Your task to perform on an android device: remove spam from my inbox in the gmail app Image 0: 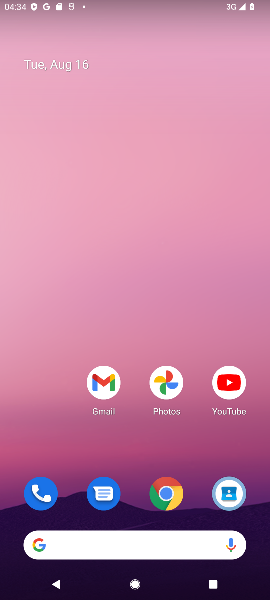
Step 0: press home button
Your task to perform on an android device: remove spam from my inbox in the gmail app Image 1: 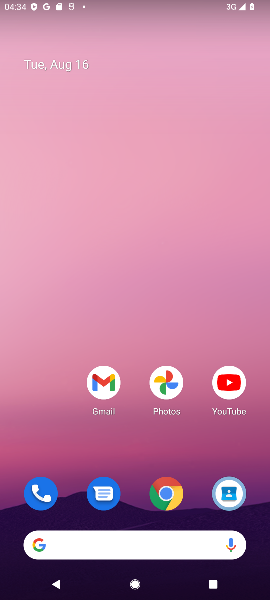
Step 1: drag from (69, 496) to (84, 126)
Your task to perform on an android device: remove spam from my inbox in the gmail app Image 2: 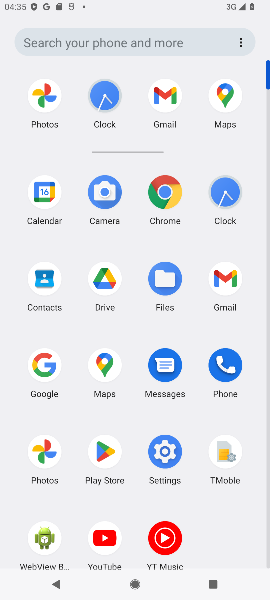
Step 2: click (225, 284)
Your task to perform on an android device: remove spam from my inbox in the gmail app Image 3: 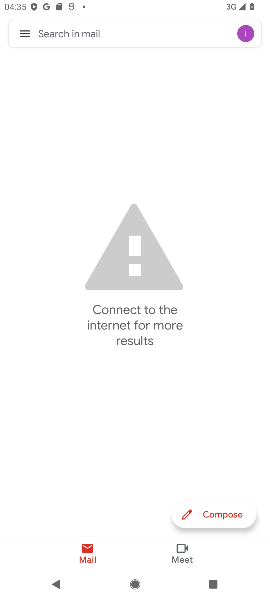
Step 3: click (25, 29)
Your task to perform on an android device: remove spam from my inbox in the gmail app Image 4: 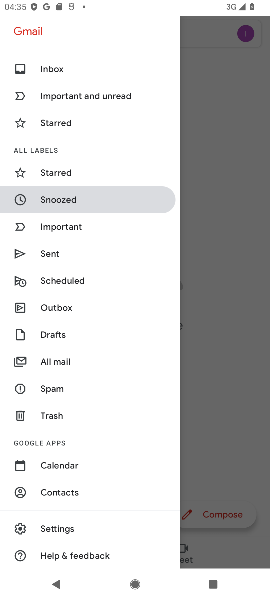
Step 4: drag from (115, 376) to (136, 231)
Your task to perform on an android device: remove spam from my inbox in the gmail app Image 5: 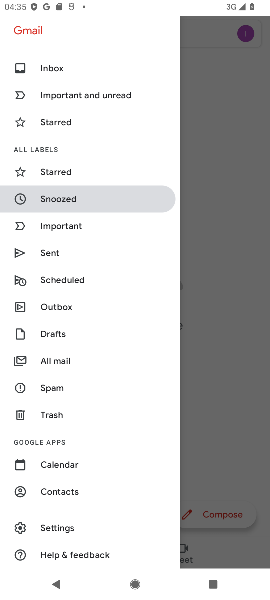
Step 5: click (93, 377)
Your task to perform on an android device: remove spam from my inbox in the gmail app Image 6: 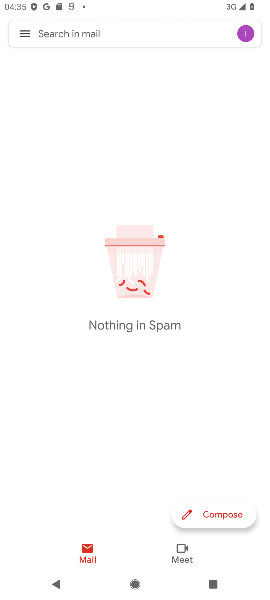
Step 6: task complete